Your task to perform on an android device: turn off location Image 0: 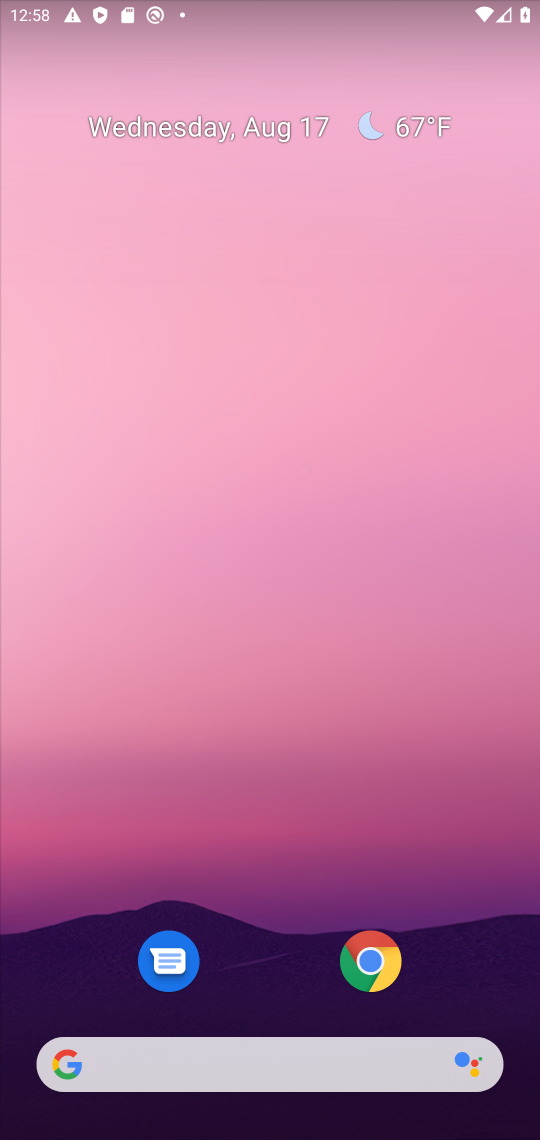
Step 0: drag from (198, 1026) to (422, 1117)
Your task to perform on an android device: turn off location Image 1: 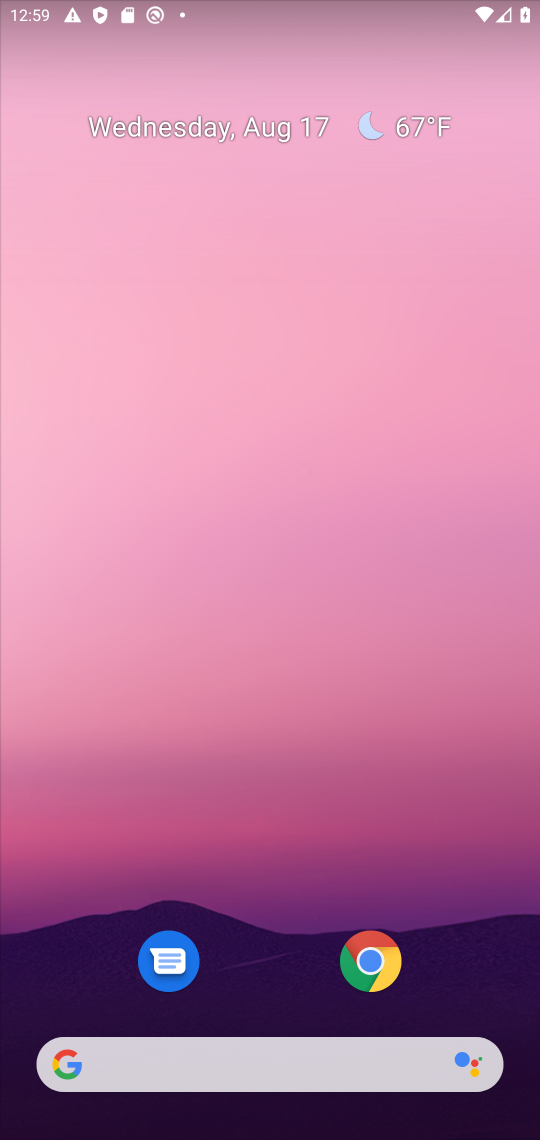
Step 1: click (384, 251)
Your task to perform on an android device: turn off location Image 2: 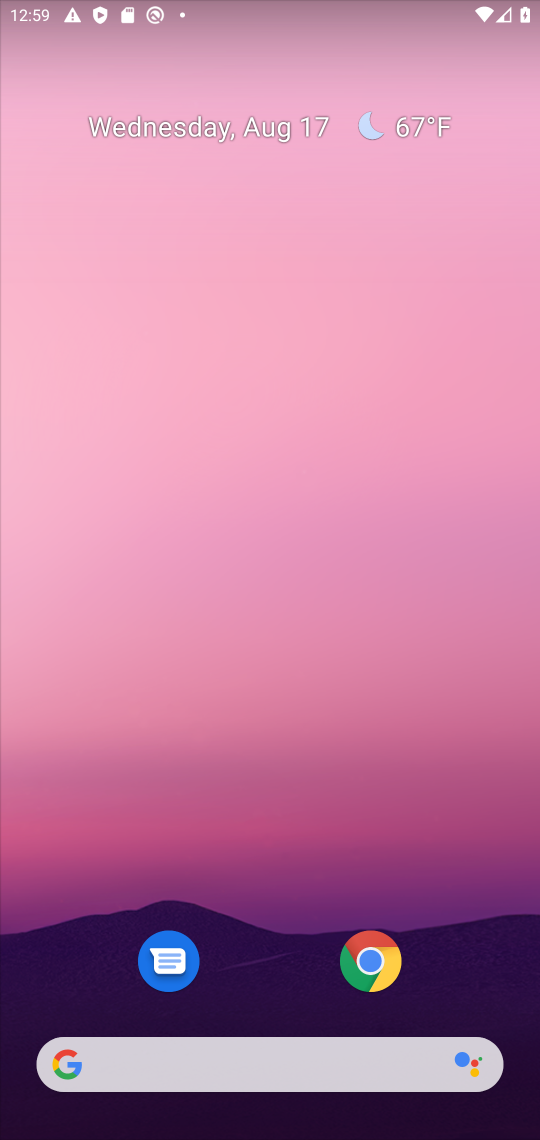
Step 2: drag from (170, 793) to (268, 99)
Your task to perform on an android device: turn off location Image 3: 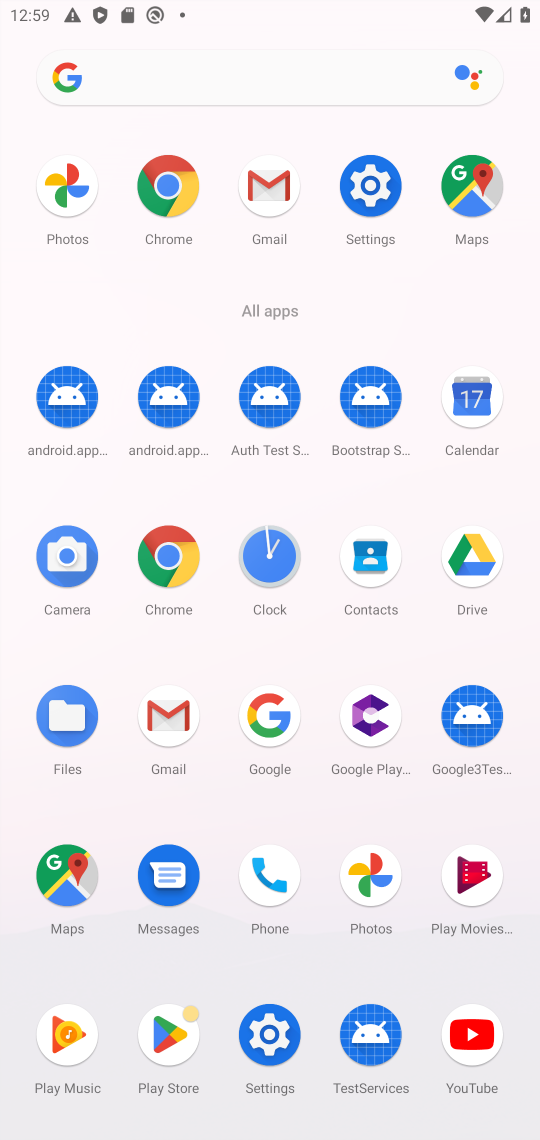
Step 3: click (383, 201)
Your task to perform on an android device: turn off location Image 4: 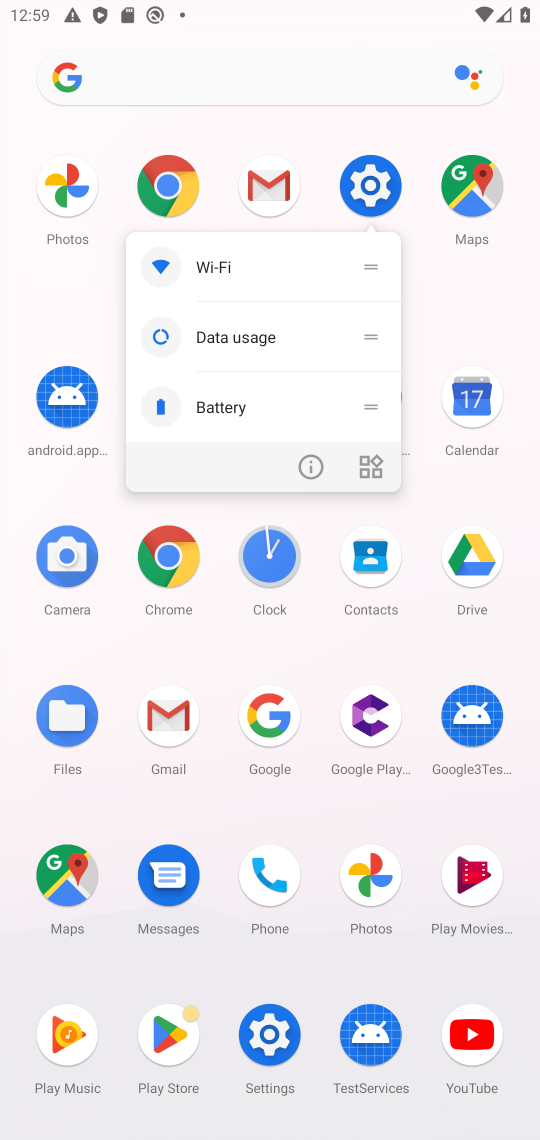
Step 4: click (364, 185)
Your task to perform on an android device: turn off location Image 5: 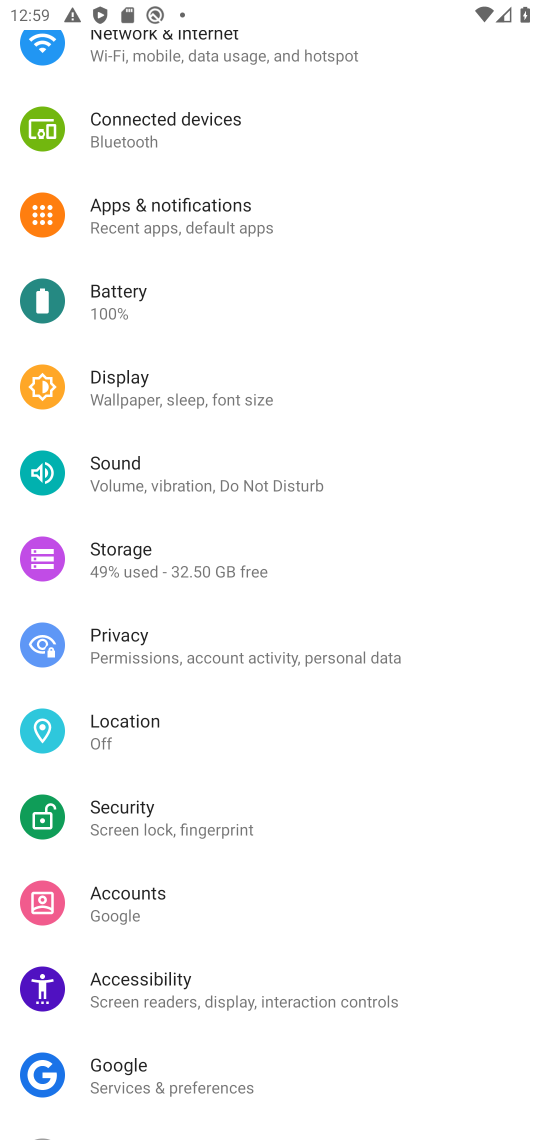
Step 5: click (187, 736)
Your task to perform on an android device: turn off location Image 6: 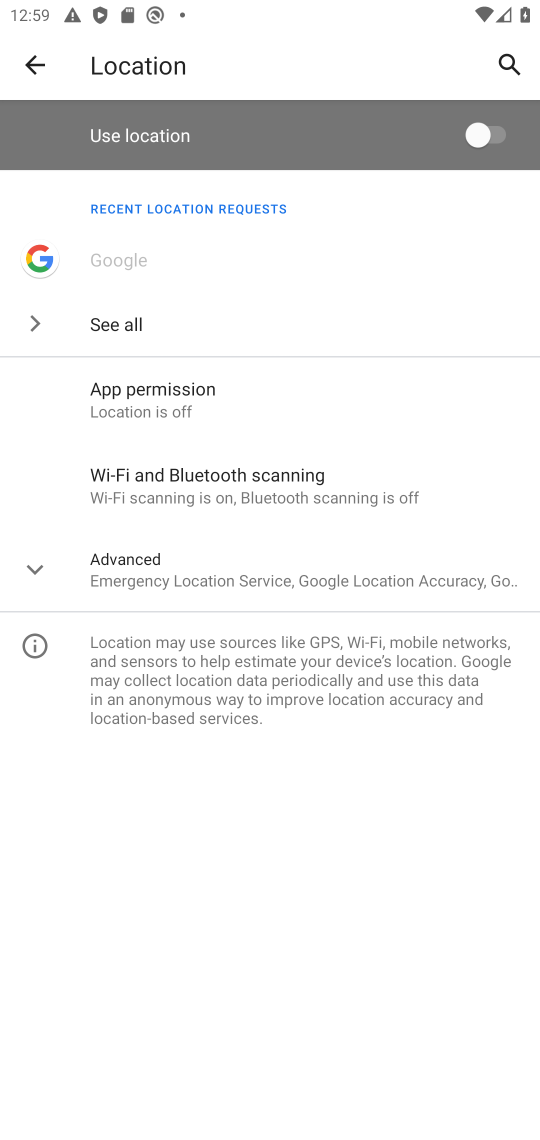
Step 6: task complete